Your task to perform on an android device: change timer sound Image 0: 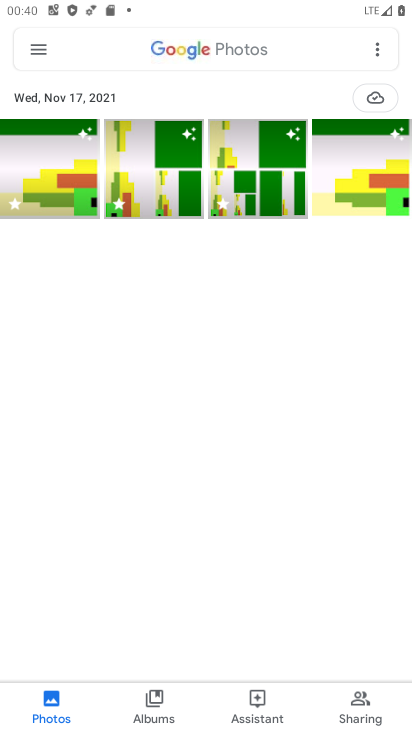
Step 0: press home button
Your task to perform on an android device: change timer sound Image 1: 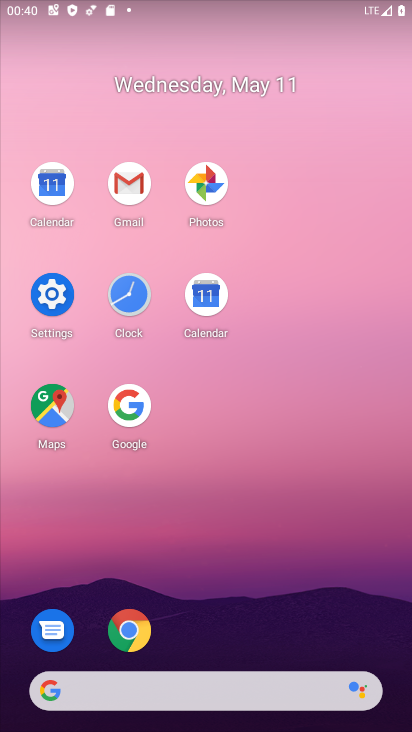
Step 1: click (119, 315)
Your task to perform on an android device: change timer sound Image 2: 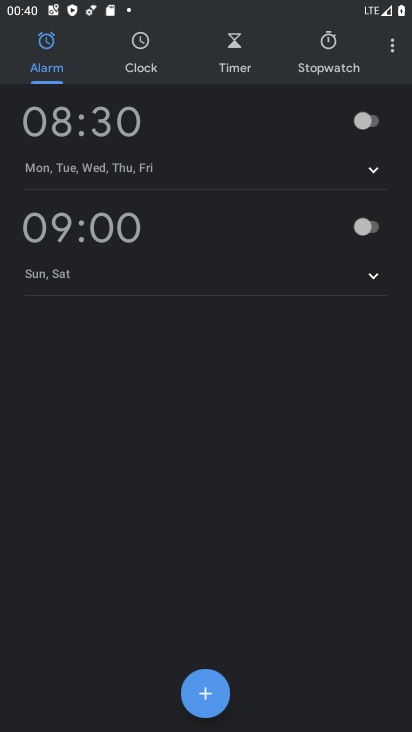
Step 2: click (393, 57)
Your task to perform on an android device: change timer sound Image 3: 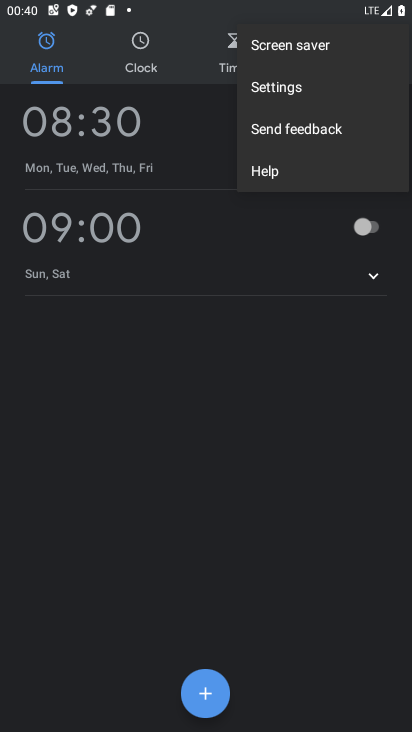
Step 3: click (292, 83)
Your task to perform on an android device: change timer sound Image 4: 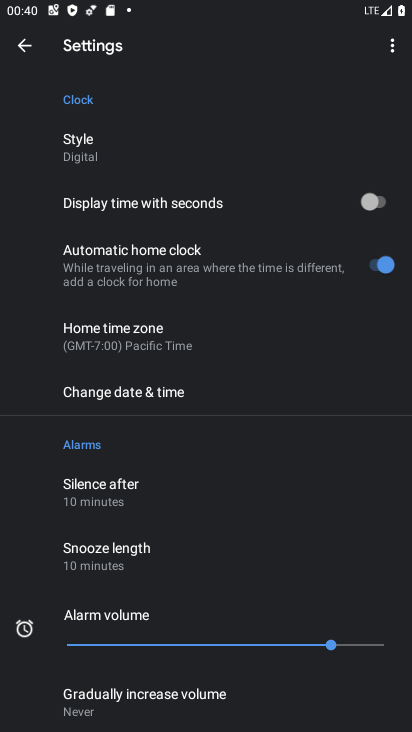
Step 4: drag from (191, 611) to (252, 186)
Your task to perform on an android device: change timer sound Image 5: 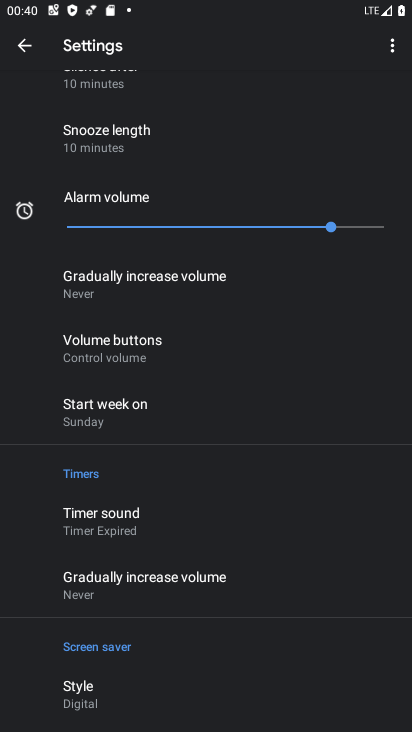
Step 5: click (145, 523)
Your task to perform on an android device: change timer sound Image 6: 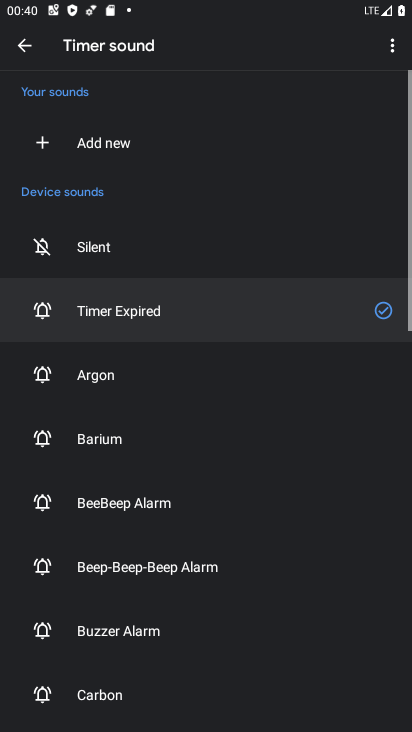
Step 6: click (79, 395)
Your task to perform on an android device: change timer sound Image 7: 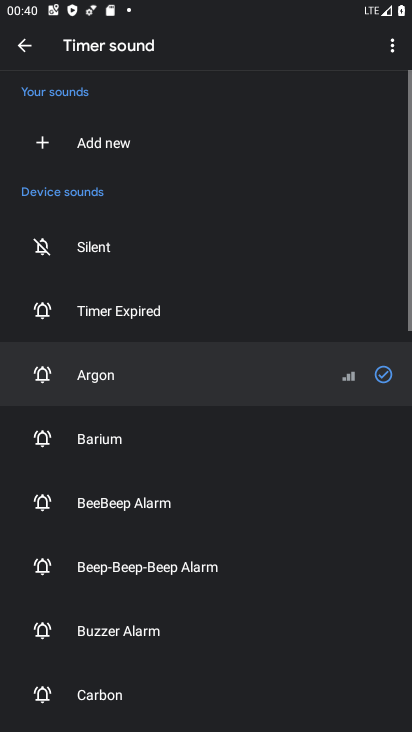
Step 7: task complete